Your task to perform on an android device: toggle translation in the chrome app Image 0: 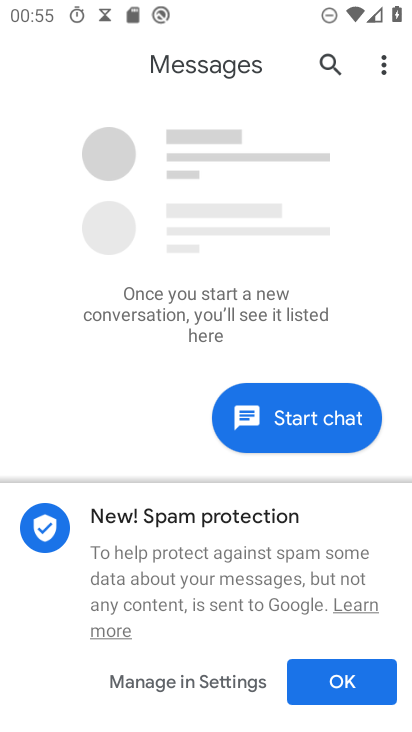
Step 0: press home button
Your task to perform on an android device: toggle translation in the chrome app Image 1: 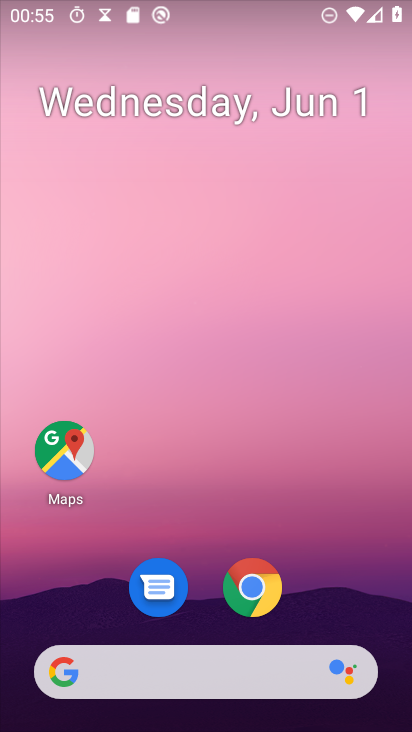
Step 1: click (246, 585)
Your task to perform on an android device: toggle translation in the chrome app Image 2: 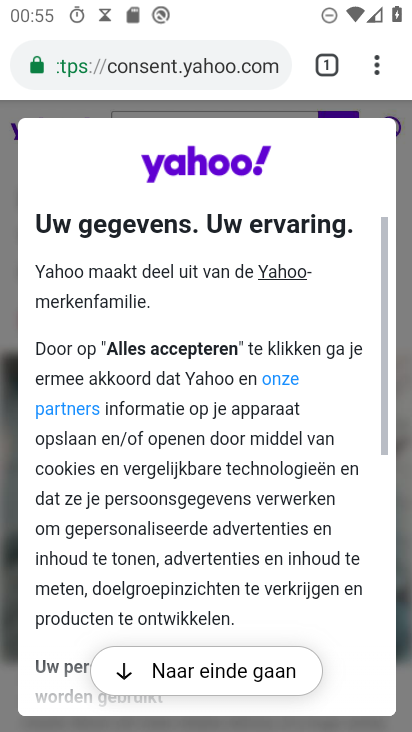
Step 2: click (372, 64)
Your task to perform on an android device: toggle translation in the chrome app Image 3: 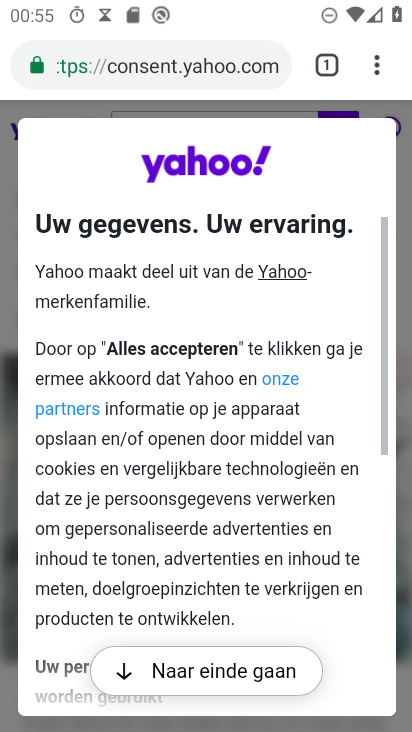
Step 3: click (377, 73)
Your task to perform on an android device: toggle translation in the chrome app Image 4: 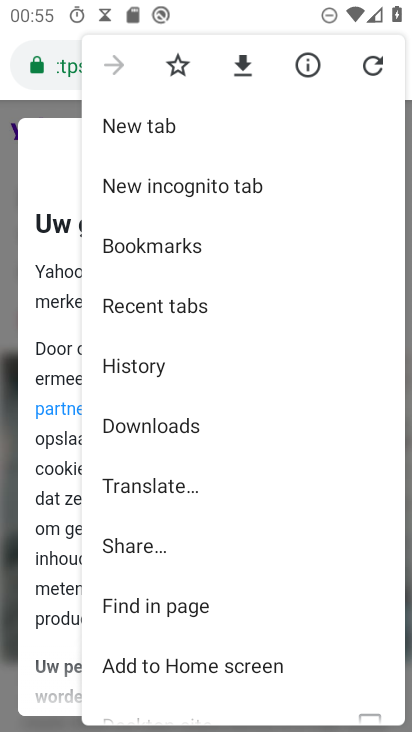
Step 4: drag from (168, 666) to (225, 202)
Your task to perform on an android device: toggle translation in the chrome app Image 5: 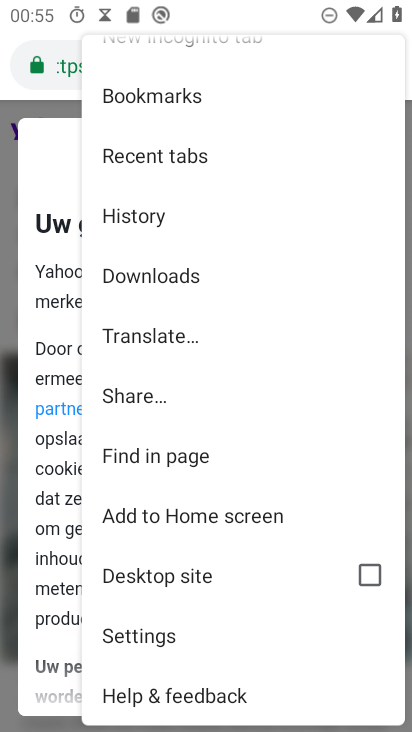
Step 5: click (177, 622)
Your task to perform on an android device: toggle translation in the chrome app Image 6: 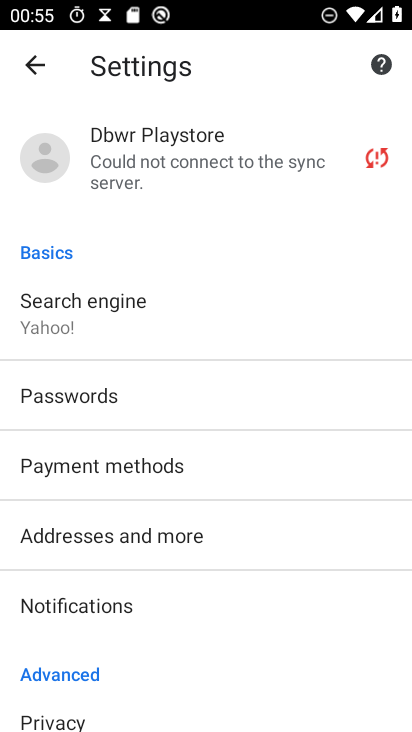
Step 6: drag from (187, 667) to (179, 135)
Your task to perform on an android device: toggle translation in the chrome app Image 7: 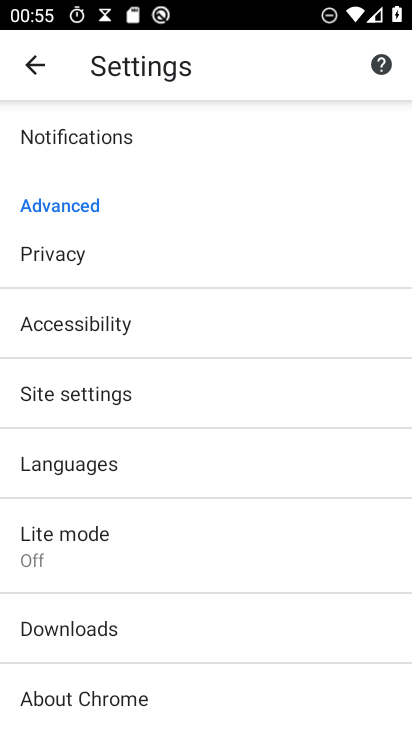
Step 7: click (148, 465)
Your task to perform on an android device: toggle translation in the chrome app Image 8: 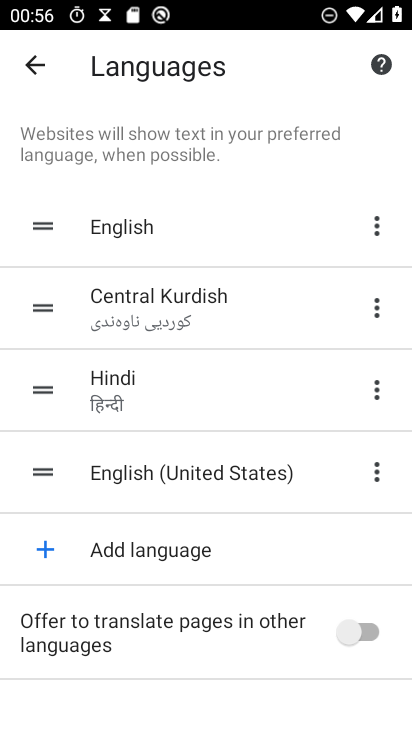
Step 8: click (352, 616)
Your task to perform on an android device: toggle translation in the chrome app Image 9: 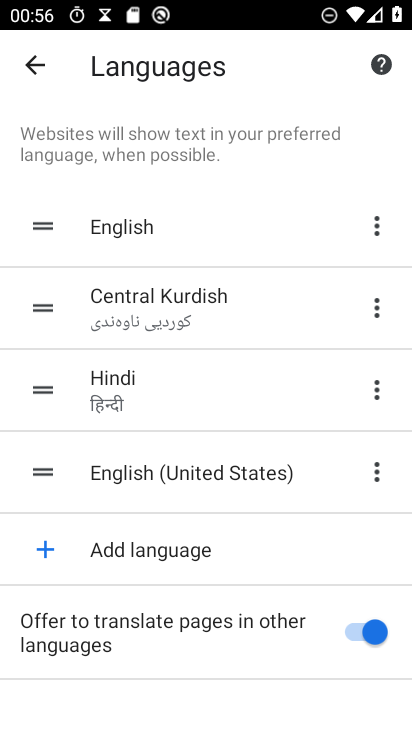
Step 9: task complete